Your task to perform on an android device: create a new album in the google photos Image 0: 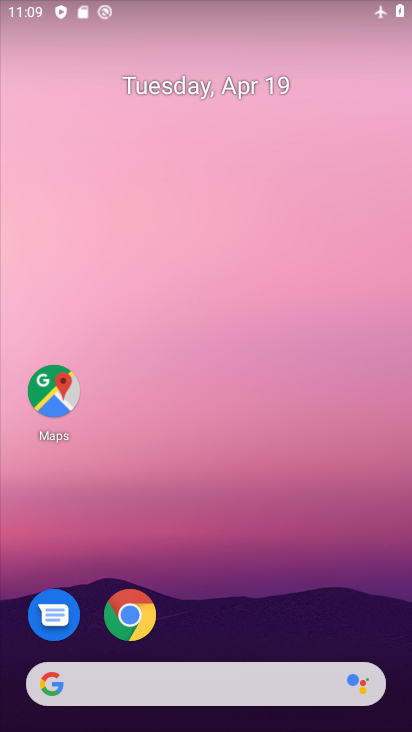
Step 0: drag from (217, 622) to (179, 179)
Your task to perform on an android device: create a new album in the google photos Image 1: 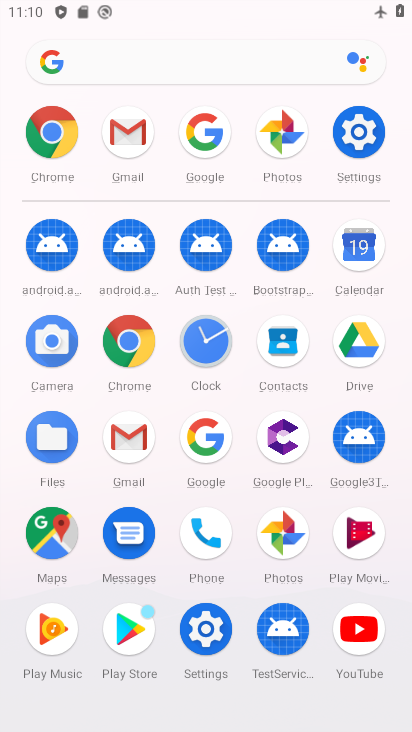
Step 1: click (281, 536)
Your task to perform on an android device: create a new album in the google photos Image 2: 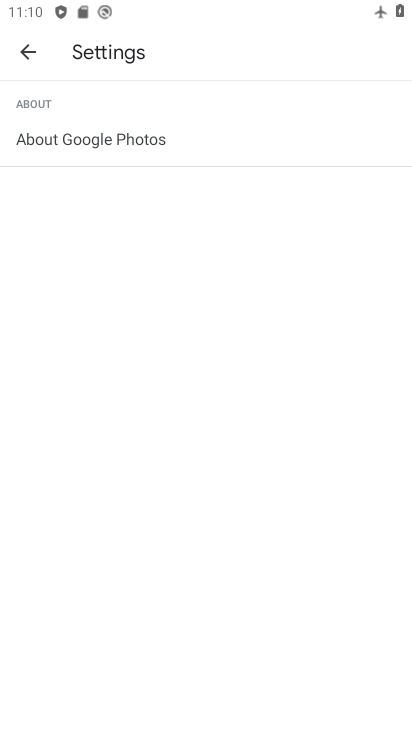
Step 2: click (25, 51)
Your task to perform on an android device: create a new album in the google photos Image 3: 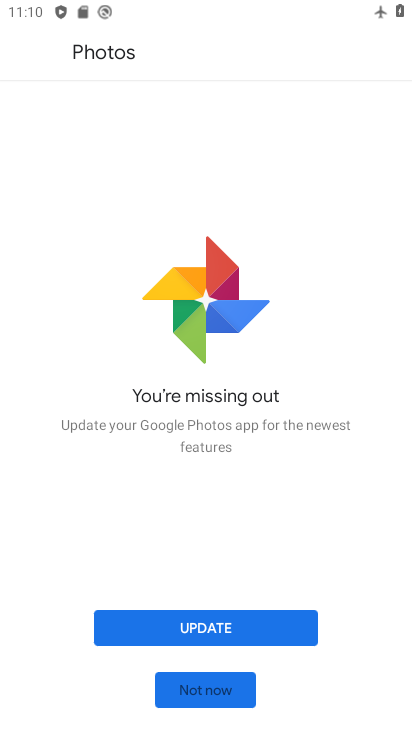
Step 3: click (204, 688)
Your task to perform on an android device: create a new album in the google photos Image 4: 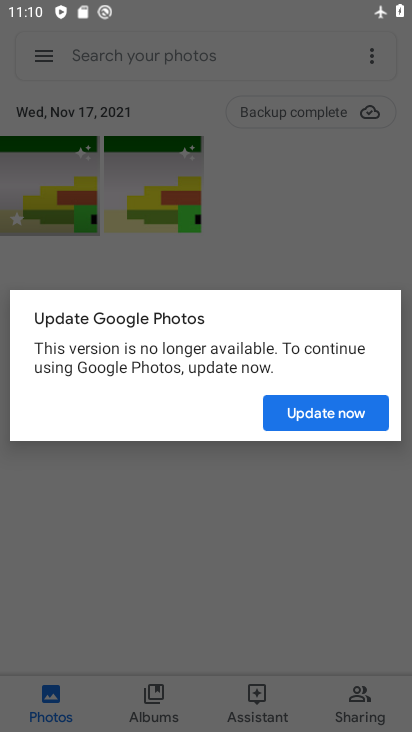
Step 4: click (315, 414)
Your task to perform on an android device: create a new album in the google photos Image 5: 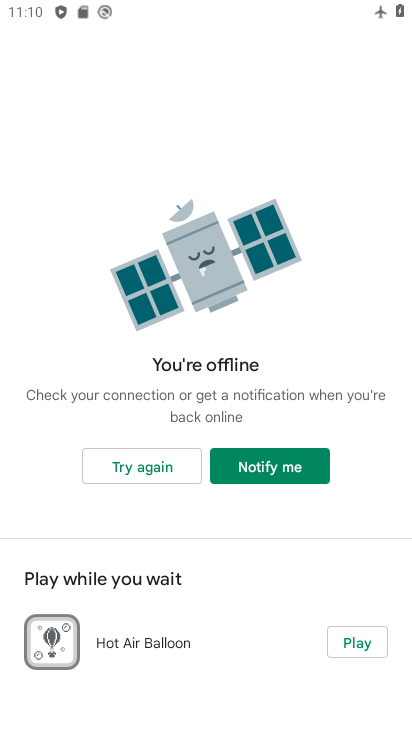
Step 5: press back button
Your task to perform on an android device: create a new album in the google photos Image 6: 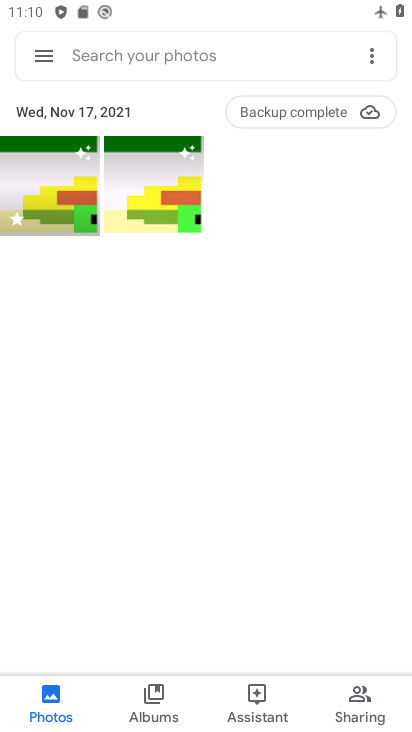
Step 6: click (155, 707)
Your task to perform on an android device: create a new album in the google photos Image 7: 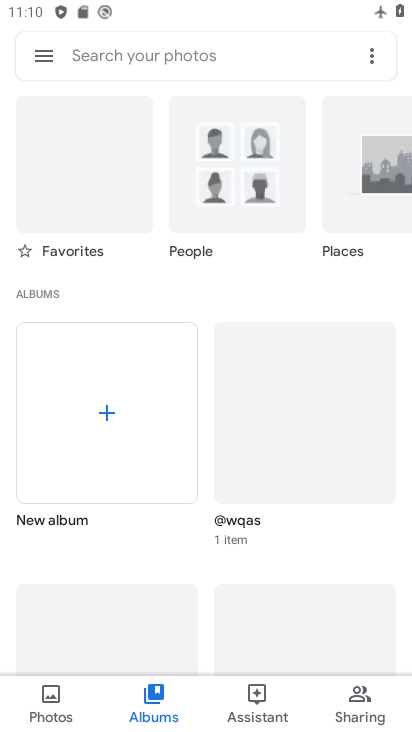
Step 7: click (366, 60)
Your task to perform on an android device: create a new album in the google photos Image 8: 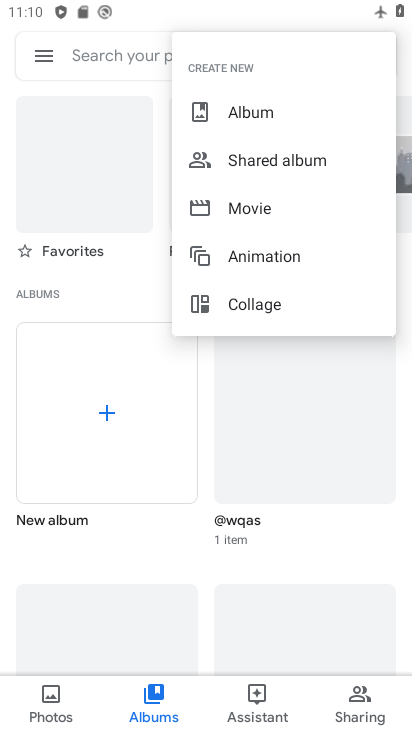
Step 8: click (255, 118)
Your task to perform on an android device: create a new album in the google photos Image 9: 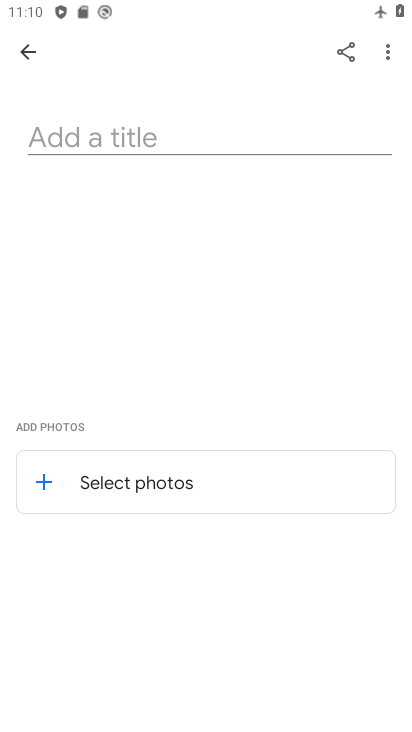
Step 9: click (137, 122)
Your task to perform on an android device: create a new album in the google photos Image 10: 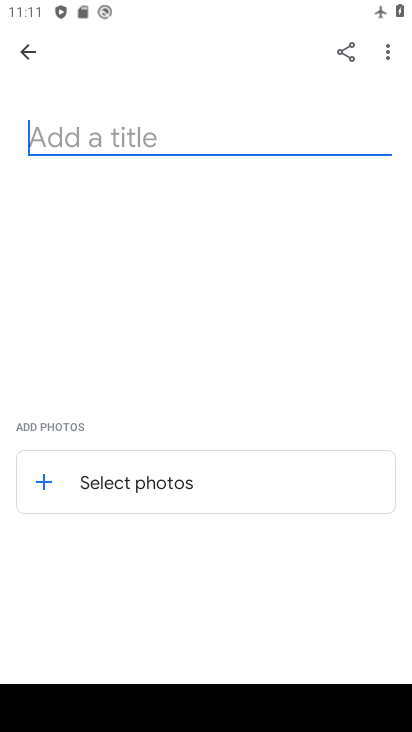
Step 10: type "hthfgf"
Your task to perform on an android device: create a new album in the google photos Image 11: 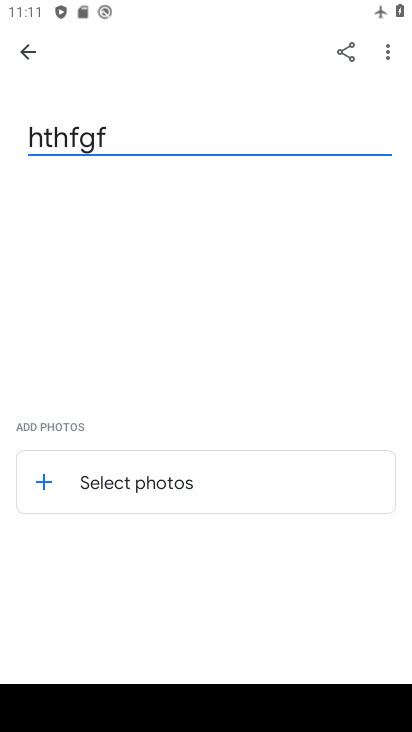
Step 11: click (47, 482)
Your task to perform on an android device: create a new album in the google photos Image 12: 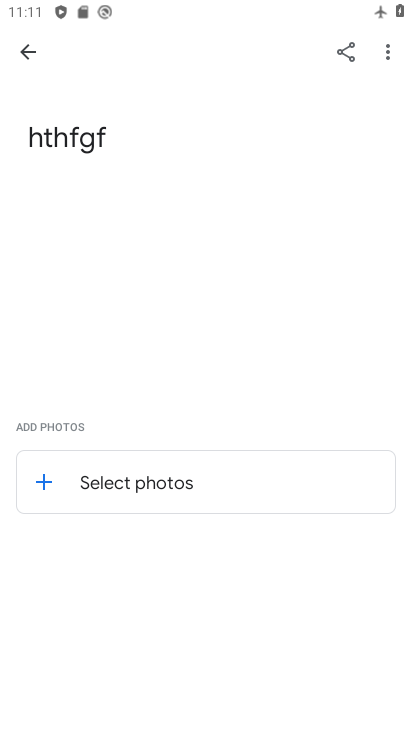
Step 12: click (45, 479)
Your task to perform on an android device: create a new album in the google photos Image 13: 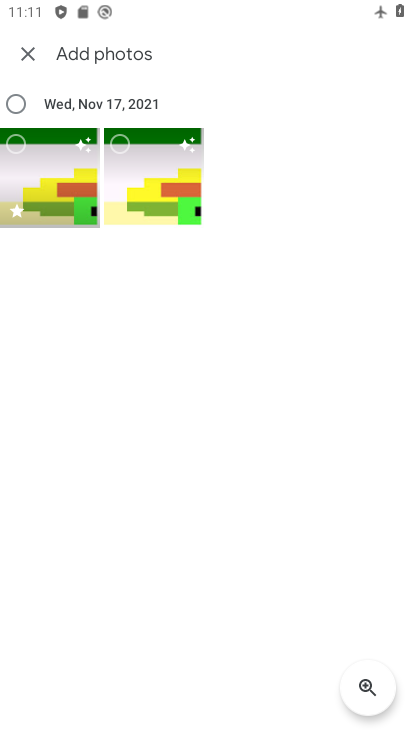
Step 13: click (159, 163)
Your task to perform on an android device: create a new album in the google photos Image 14: 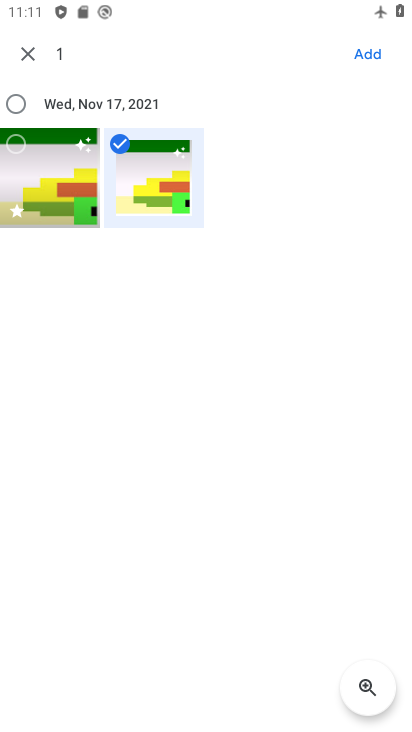
Step 14: click (358, 52)
Your task to perform on an android device: create a new album in the google photos Image 15: 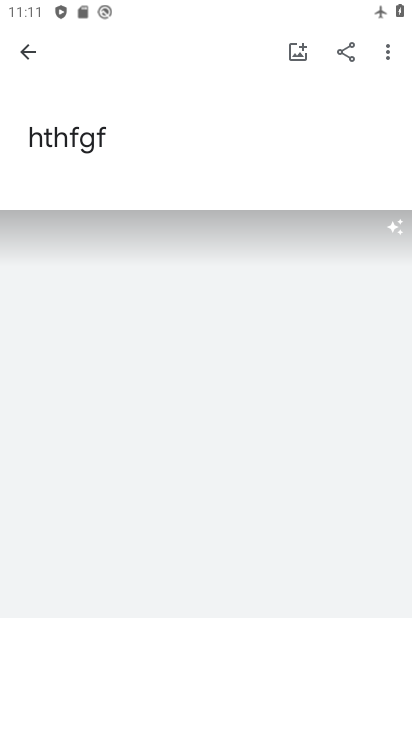
Step 15: task complete